Your task to perform on an android device: Open Chrome and go to the settings page Image 0: 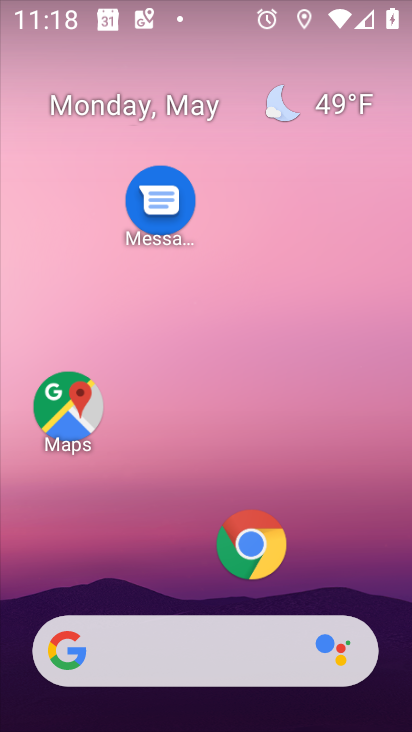
Step 0: click (253, 555)
Your task to perform on an android device: Open Chrome and go to the settings page Image 1: 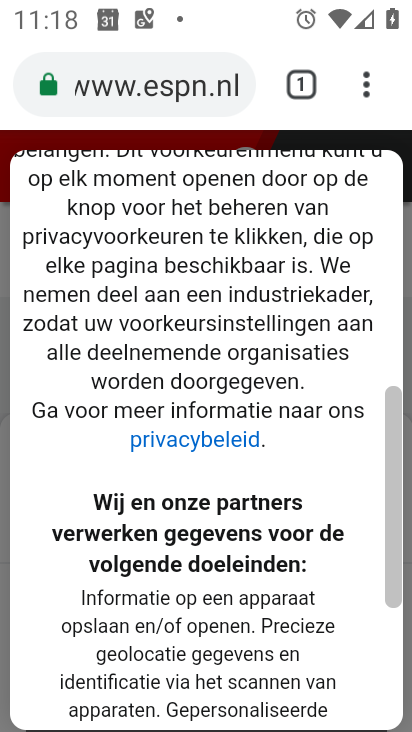
Step 1: click (358, 81)
Your task to perform on an android device: Open Chrome and go to the settings page Image 2: 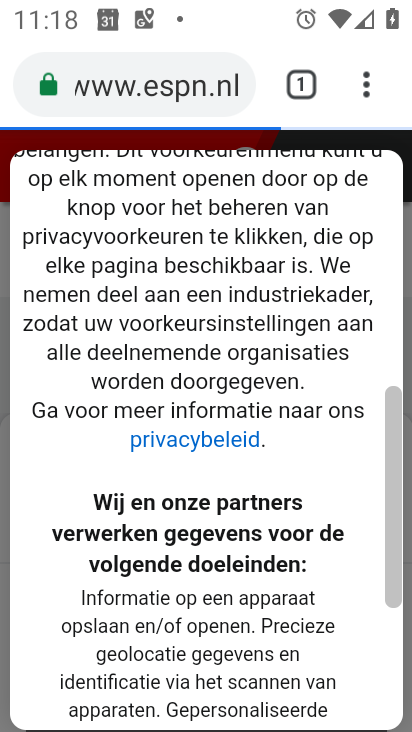
Step 2: click (359, 82)
Your task to perform on an android device: Open Chrome and go to the settings page Image 3: 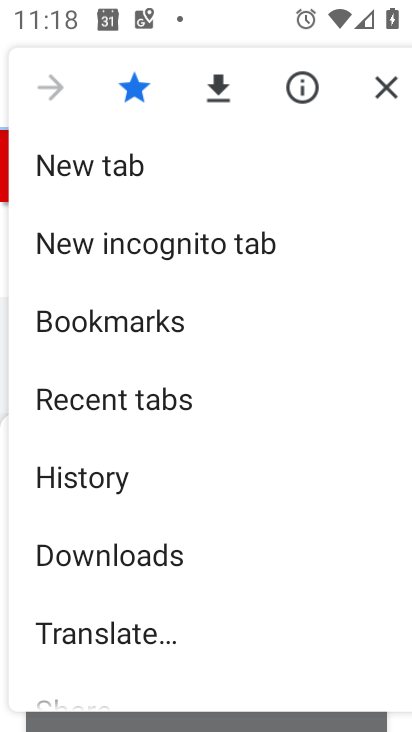
Step 3: drag from (208, 623) to (268, 373)
Your task to perform on an android device: Open Chrome and go to the settings page Image 4: 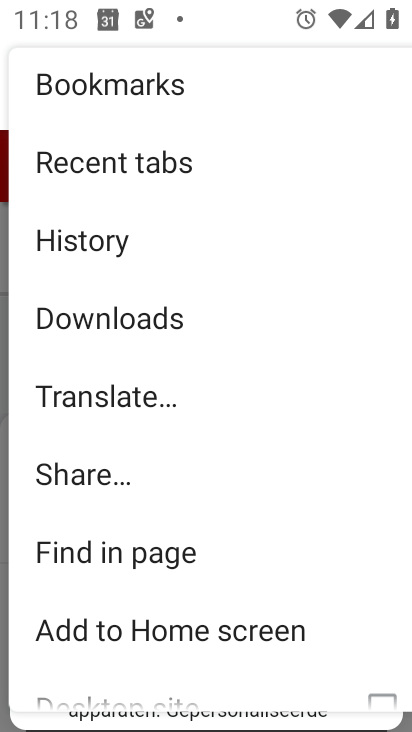
Step 4: drag from (188, 645) to (204, 531)
Your task to perform on an android device: Open Chrome and go to the settings page Image 5: 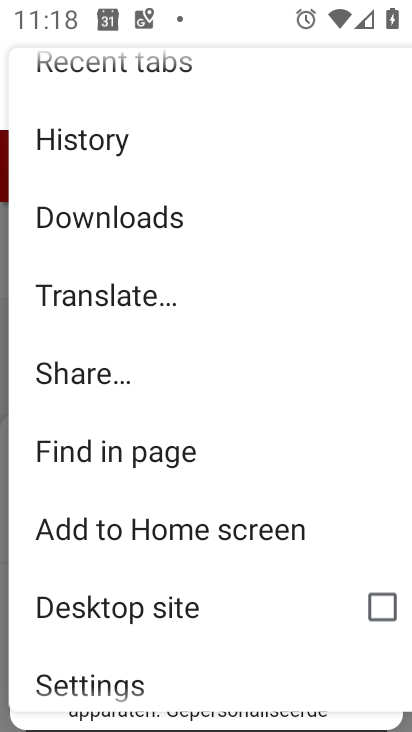
Step 5: click (172, 677)
Your task to perform on an android device: Open Chrome and go to the settings page Image 6: 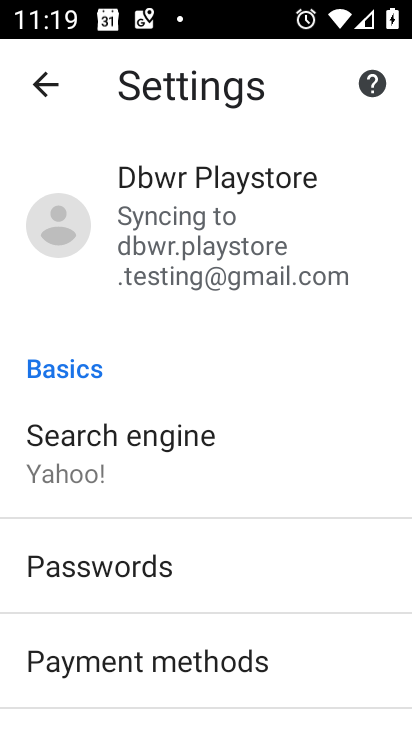
Step 6: task complete